Your task to perform on an android device: snooze an email in the gmail app Image 0: 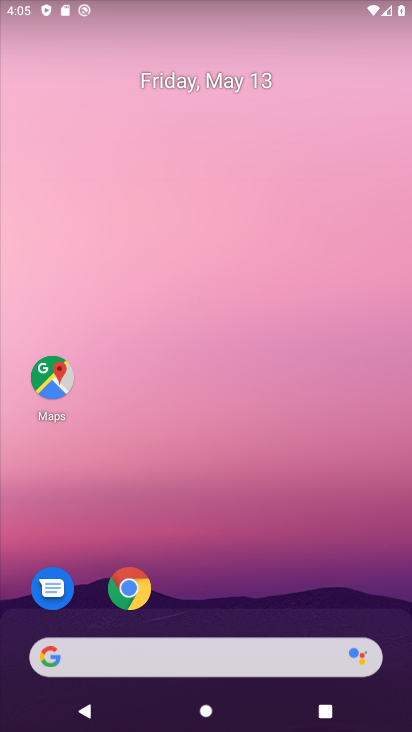
Step 0: drag from (228, 585) to (324, 2)
Your task to perform on an android device: snooze an email in the gmail app Image 1: 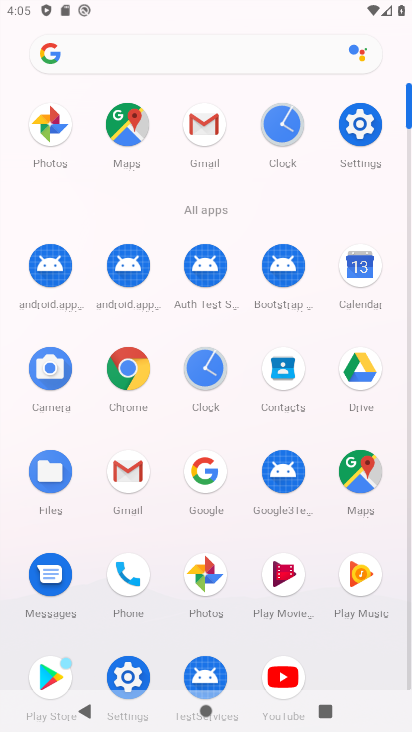
Step 1: click (198, 163)
Your task to perform on an android device: snooze an email in the gmail app Image 2: 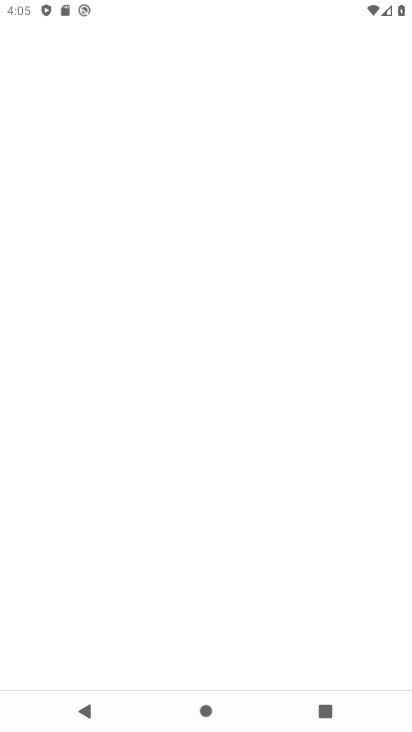
Step 2: click (199, 125)
Your task to perform on an android device: snooze an email in the gmail app Image 3: 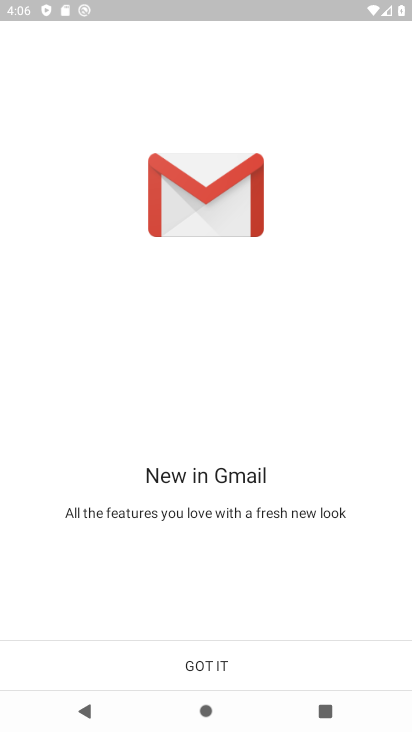
Step 3: click (158, 643)
Your task to perform on an android device: snooze an email in the gmail app Image 4: 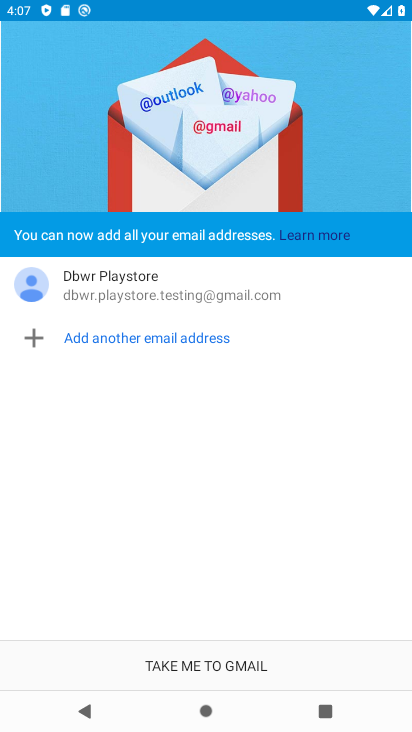
Step 4: click (203, 649)
Your task to perform on an android device: snooze an email in the gmail app Image 5: 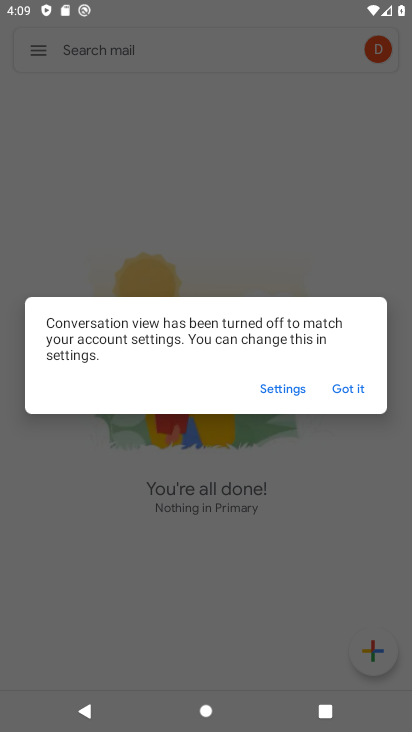
Step 5: task complete